Your task to perform on an android device: open wifi settings Image 0: 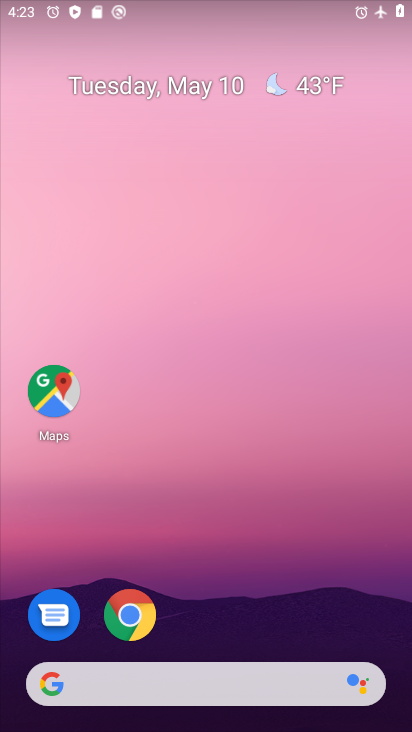
Step 0: drag from (278, 579) to (263, 68)
Your task to perform on an android device: open wifi settings Image 1: 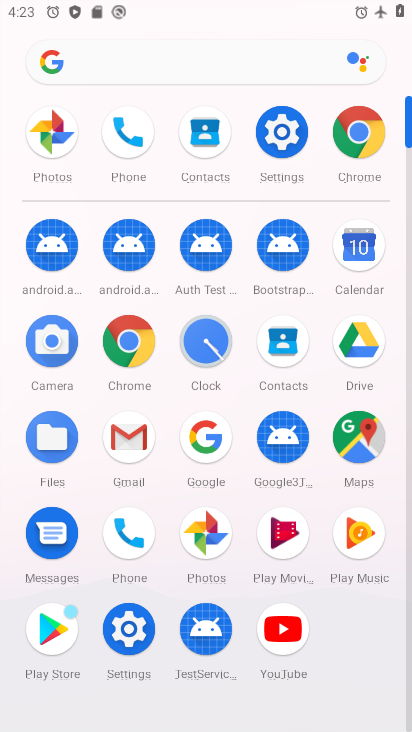
Step 1: click (130, 624)
Your task to perform on an android device: open wifi settings Image 2: 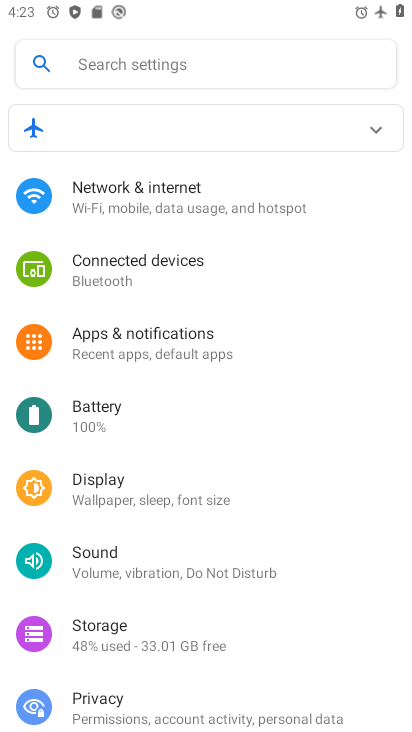
Step 2: drag from (262, 520) to (262, 155)
Your task to perform on an android device: open wifi settings Image 3: 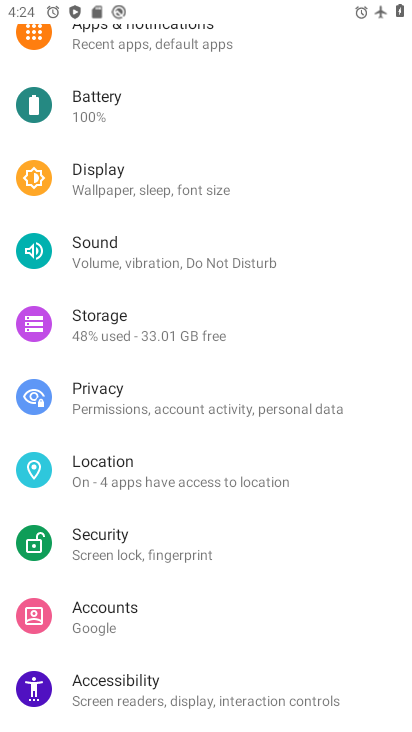
Step 3: drag from (240, 98) to (267, 542)
Your task to perform on an android device: open wifi settings Image 4: 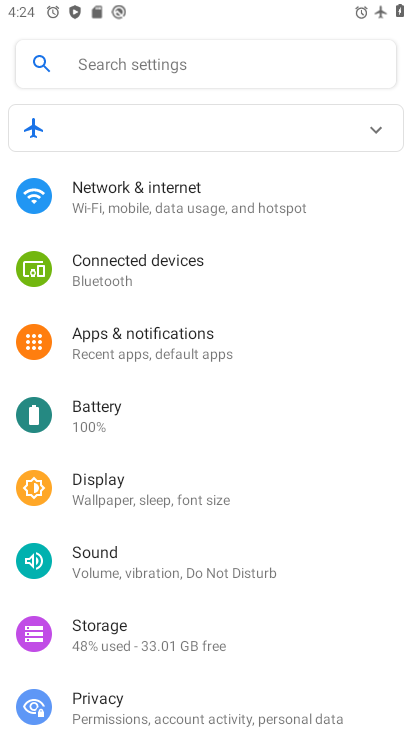
Step 4: click (196, 199)
Your task to perform on an android device: open wifi settings Image 5: 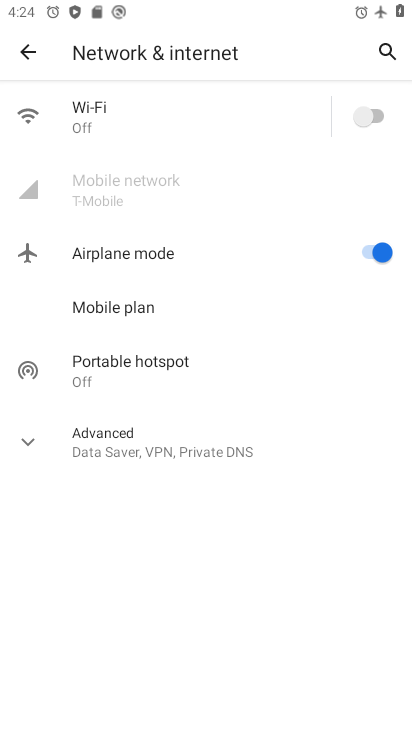
Step 5: click (100, 100)
Your task to perform on an android device: open wifi settings Image 6: 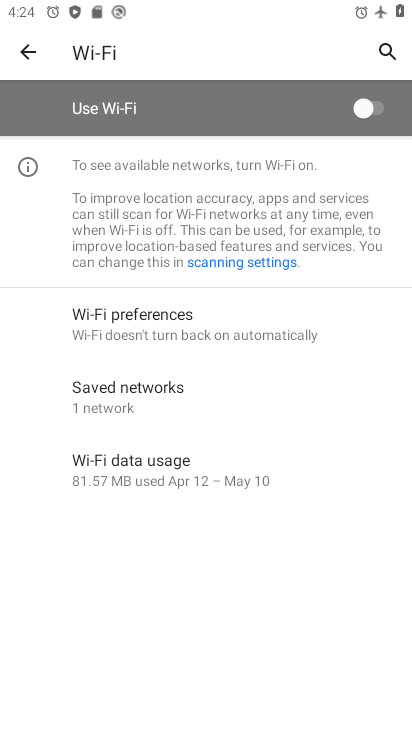
Step 6: click (377, 101)
Your task to perform on an android device: open wifi settings Image 7: 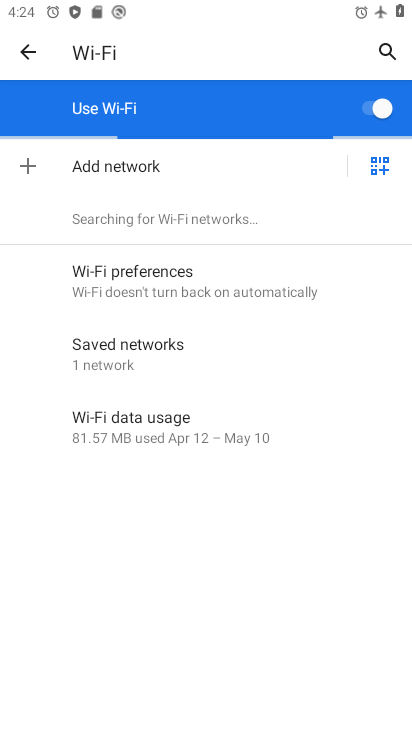
Step 7: click (370, 105)
Your task to perform on an android device: open wifi settings Image 8: 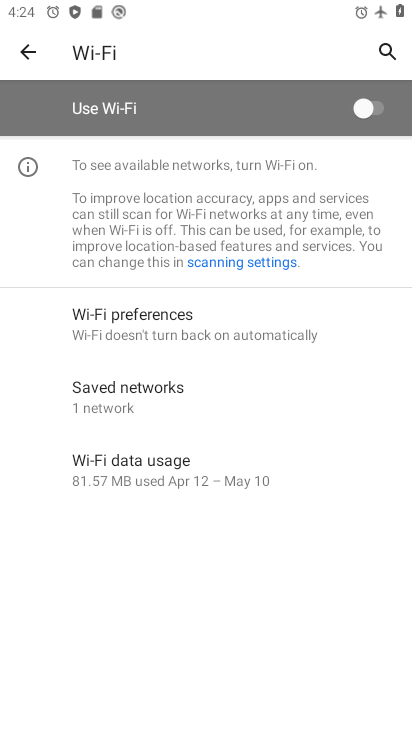
Step 8: task complete